Your task to perform on an android device: change notifications settings Image 0: 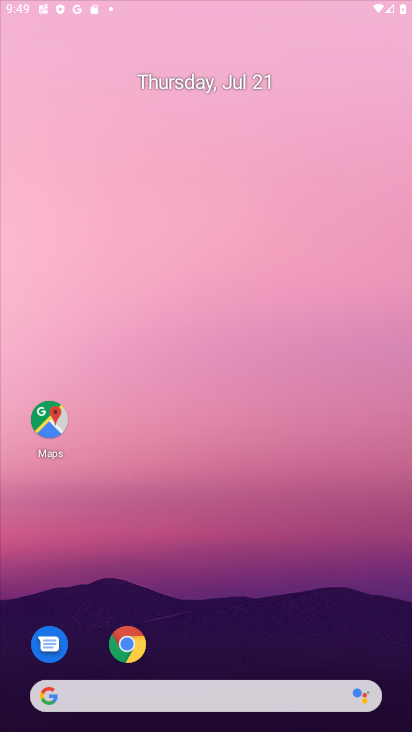
Step 0: press home button
Your task to perform on an android device: change notifications settings Image 1: 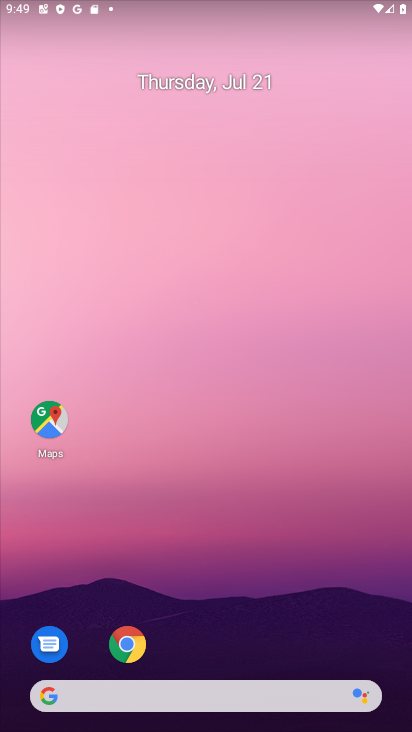
Step 1: drag from (213, 659) to (255, 115)
Your task to perform on an android device: change notifications settings Image 2: 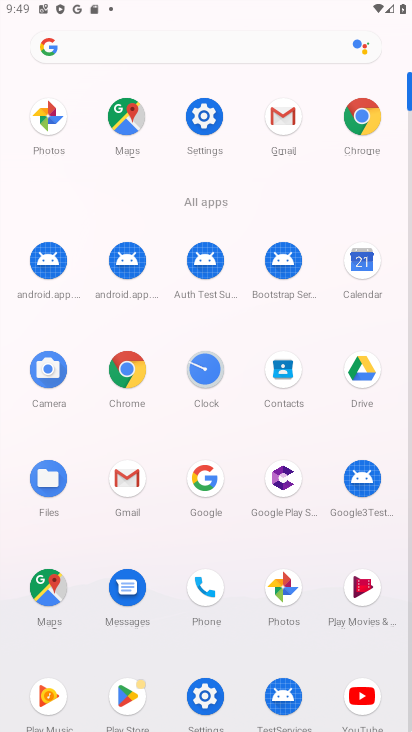
Step 2: click (201, 110)
Your task to perform on an android device: change notifications settings Image 3: 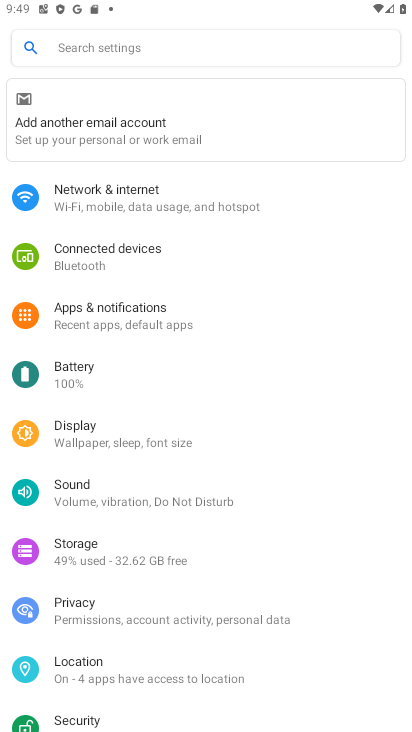
Step 3: click (173, 303)
Your task to perform on an android device: change notifications settings Image 4: 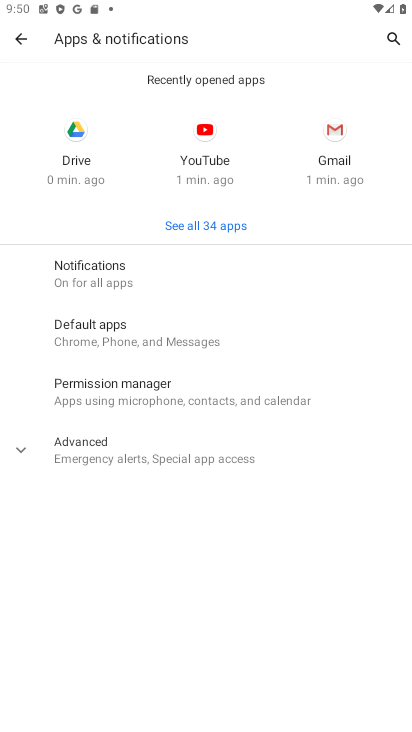
Step 4: click (139, 272)
Your task to perform on an android device: change notifications settings Image 5: 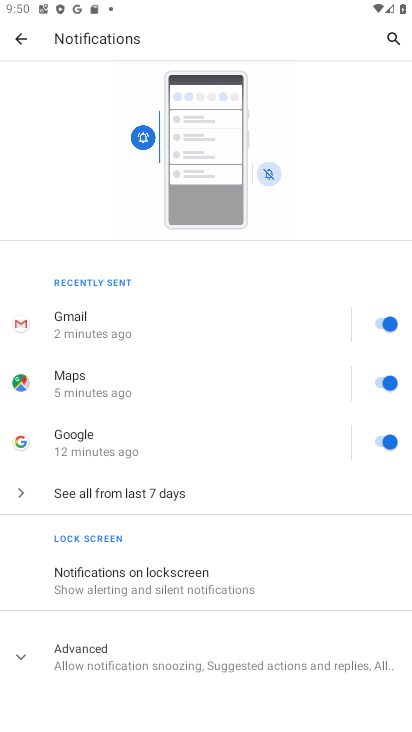
Step 5: click (18, 651)
Your task to perform on an android device: change notifications settings Image 6: 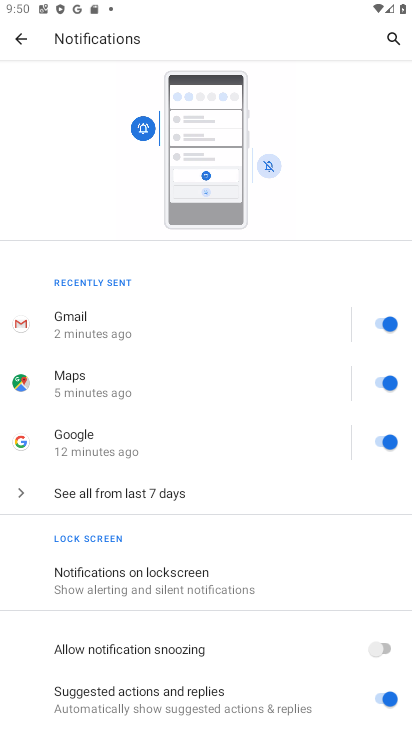
Step 6: drag from (213, 647) to (240, 226)
Your task to perform on an android device: change notifications settings Image 7: 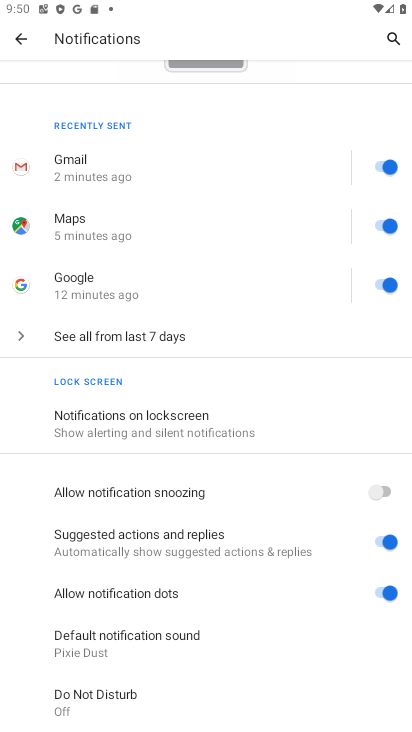
Step 7: click (384, 163)
Your task to perform on an android device: change notifications settings Image 8: 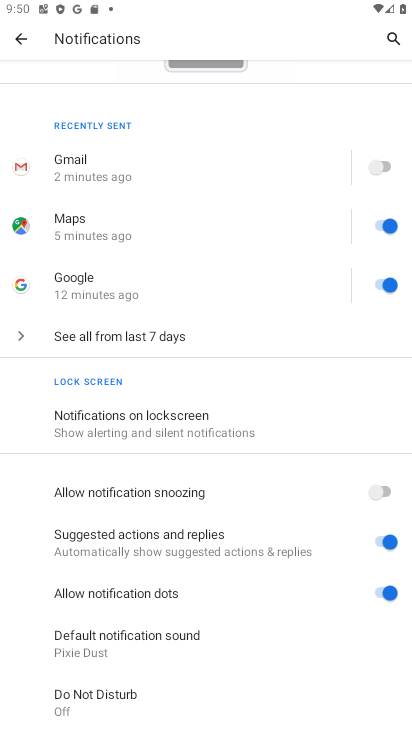
Step 8: click (381, 222)
Your task to perform on an android device: change notifications settings Image 9: 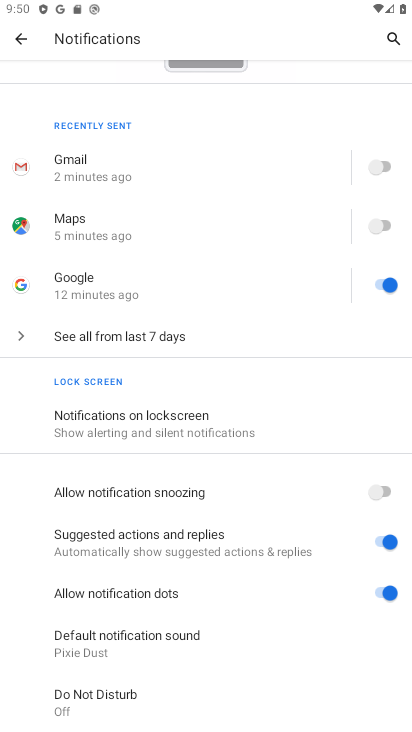
Step 9: click (388, 282)
Your task to perform on an android device: change notifications settings Image 10: 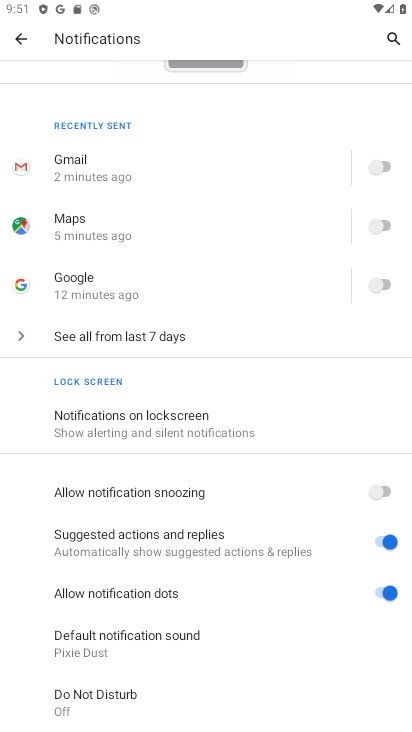
Step 10: click (384, 535)
Your task to perform on an android device: change notifications settings Image 11: 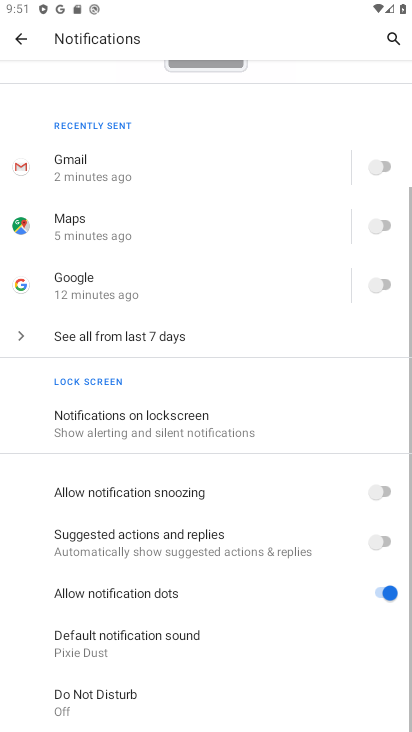
Step 11: click (384, 592)
Your task to perform on an android device: change notifications settings Image 12: 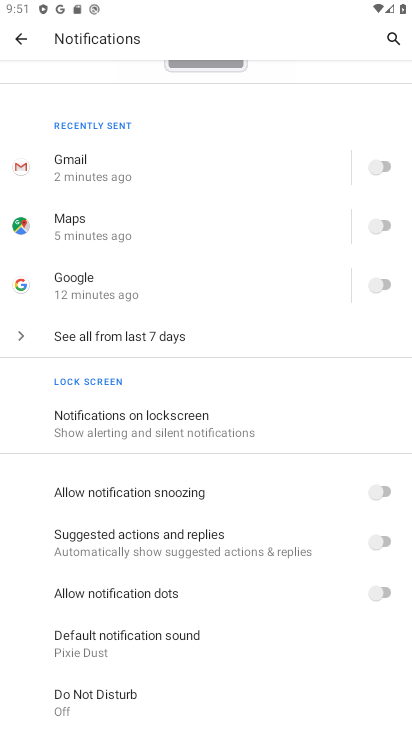
Step 12: task complete